Your task to perform on an android device: Go to Google Image 0: 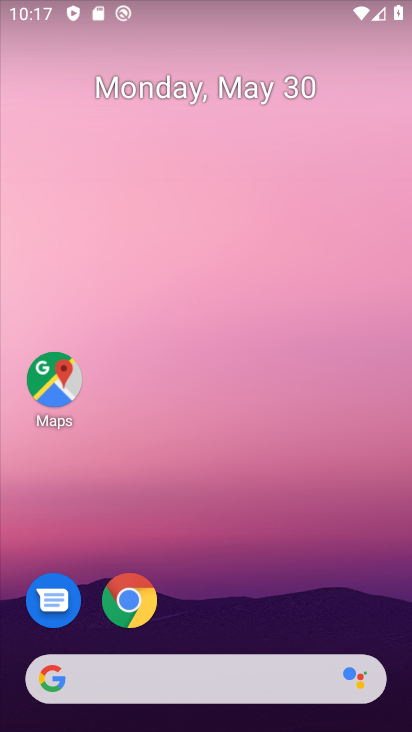
Step 0: drag from (291, 623) to (308, 87)
Your task to perform on an android device: Go to Google Image 1: 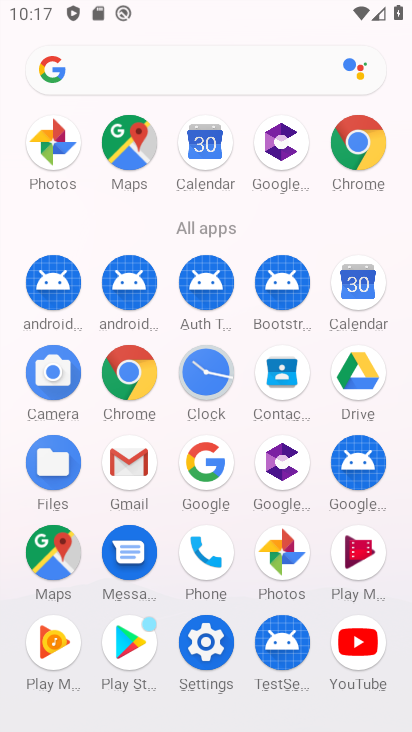
Step 1: click (195, 461)
Your task to perform on an android device: Go to Google Image 2: 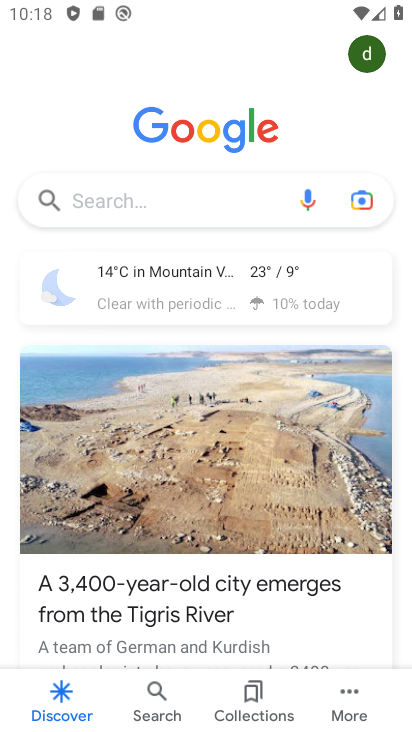
Step 2: task complete